Your task to perform on an android device: Go to Reddit.com Image 0: 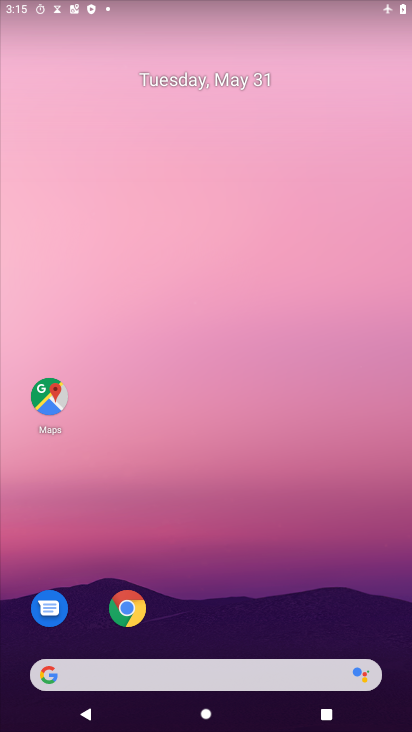
Step 0: click (139, 602)
Your task to perform on an android device: Go to Reddit.com Image 1: 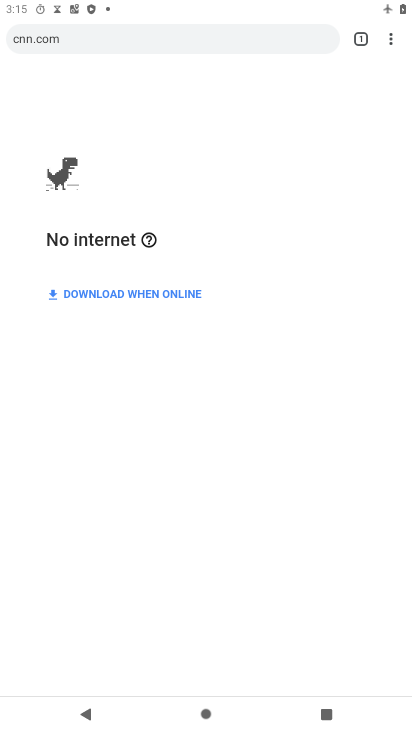
Step 1: click (140, 43)
Your task to perform on an android device: Go to Reddit.com Image 2: 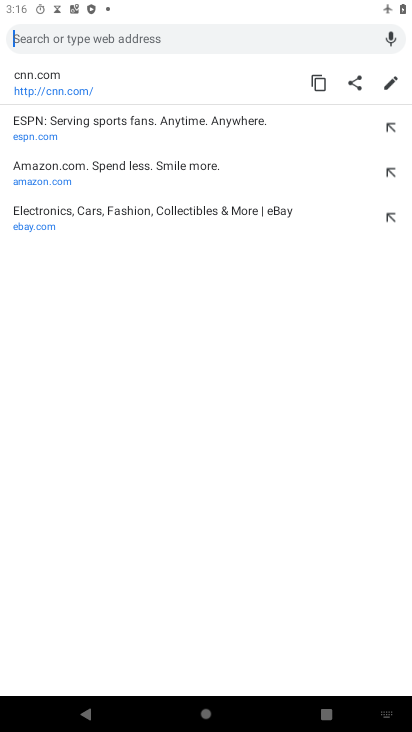
Step 2: type "Reddit.com"
Your task to perform on an android device: Go to Reddit.com Image 3: 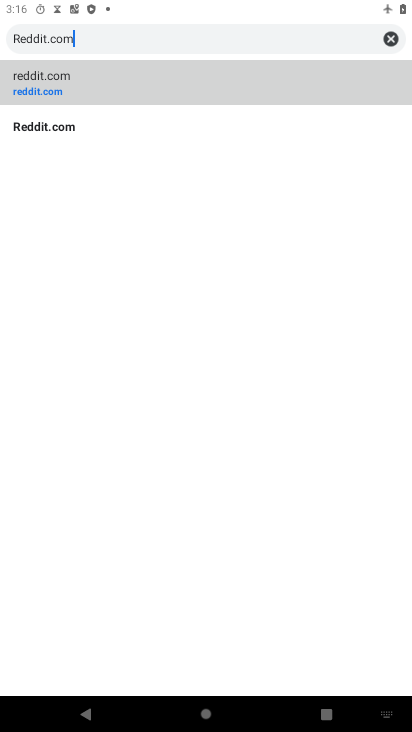
Step 3: click (109, 75)
Your task to perform on an android device: Go to Reddit.com Image 4: 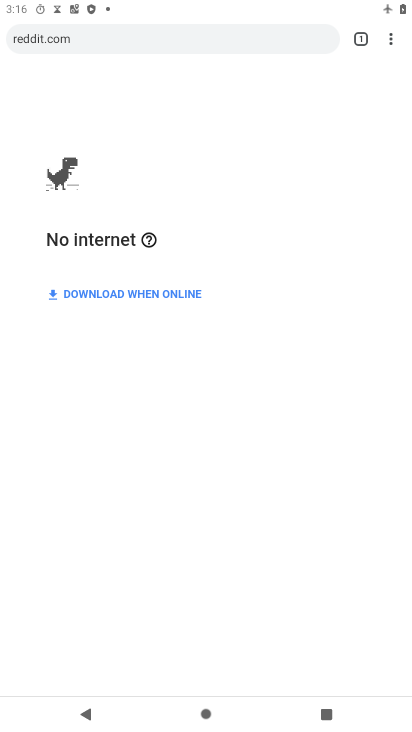
Step 4: task complete